Your task to perform on an android device: toggle sleep mode Image 0: 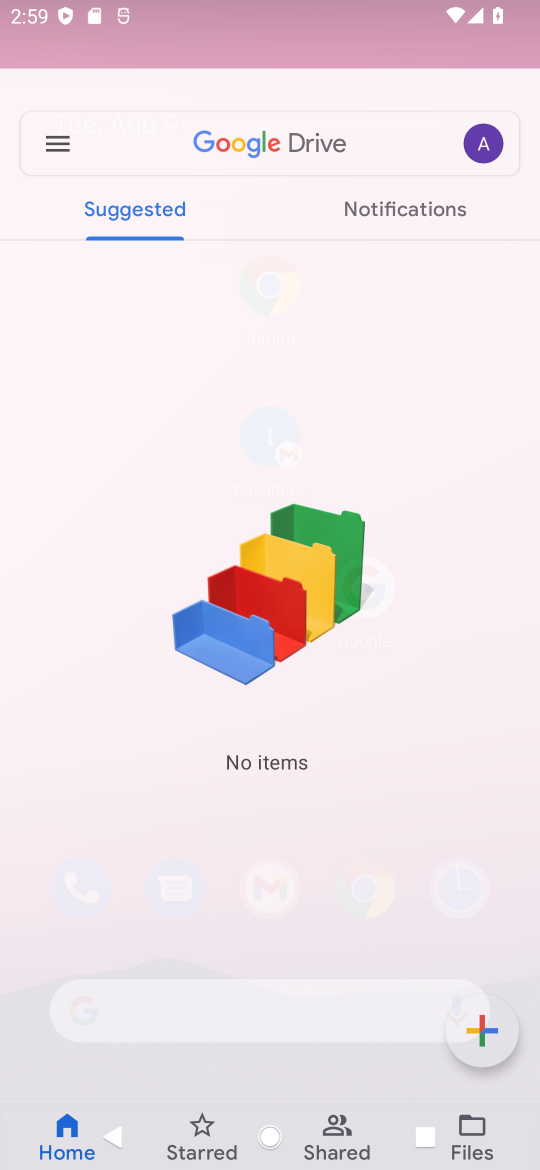
Step 0: press back button
Your task to perform on an android device: toggle sleep mode Image 1: 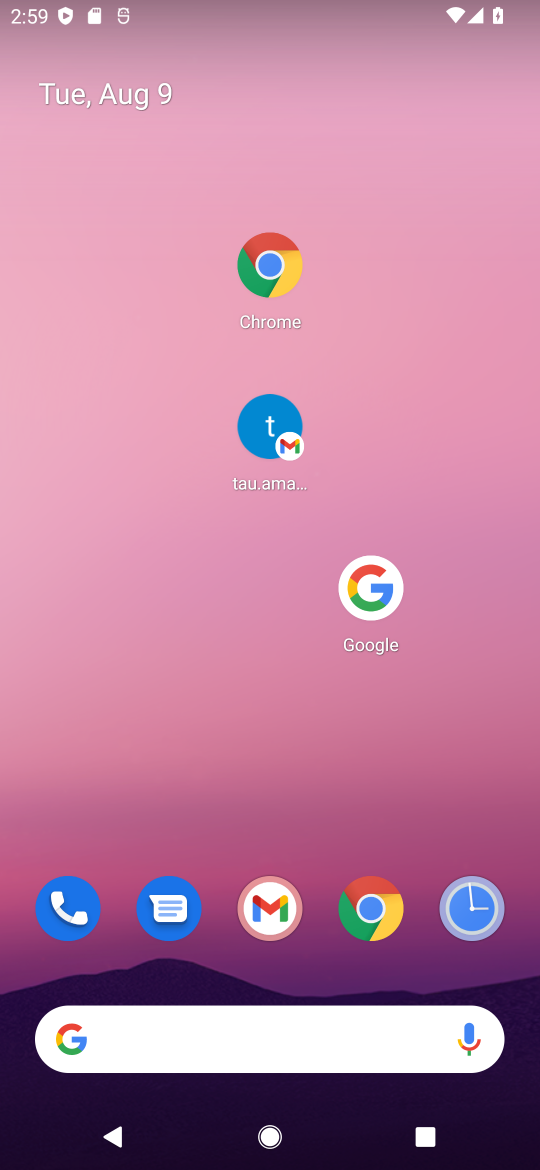
Step 1: press home button
Your task to perform on an android device: toggle sleep mode Image 2: 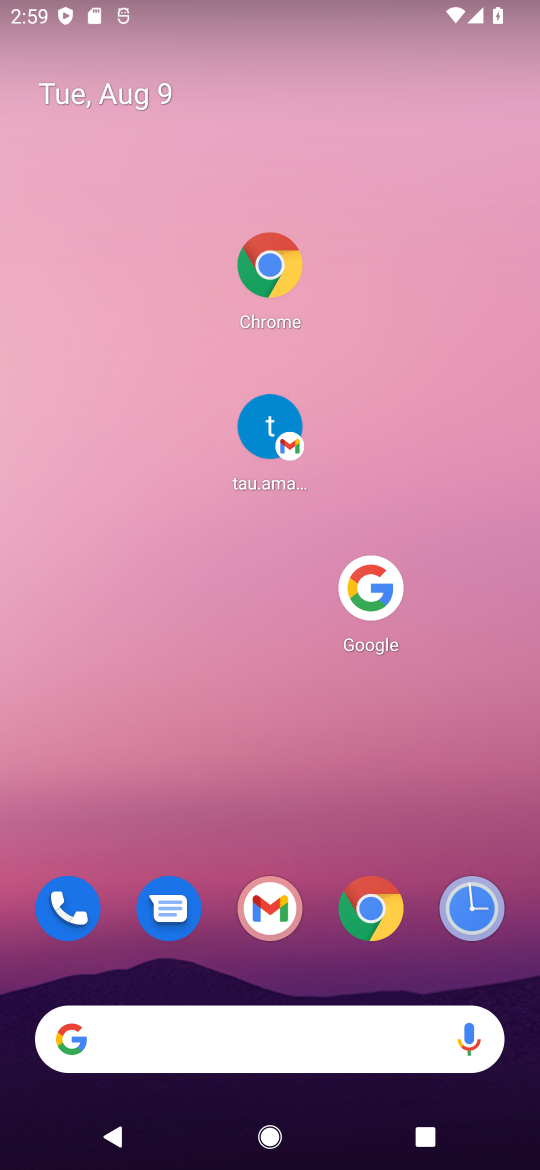
Step 2: drag from (326, 825) to (340, 175)
Your task to perform on an android device: toggle sleep mode Image 3: 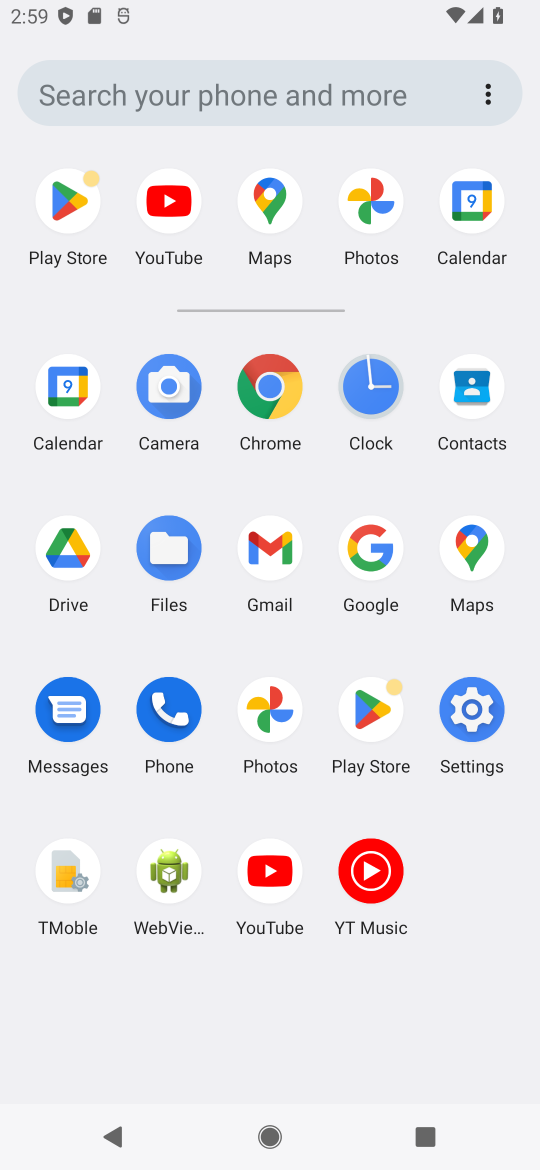
Step 3: click (471, 723)
Your task to perform on an android device: toggle sleep mode Image 4: 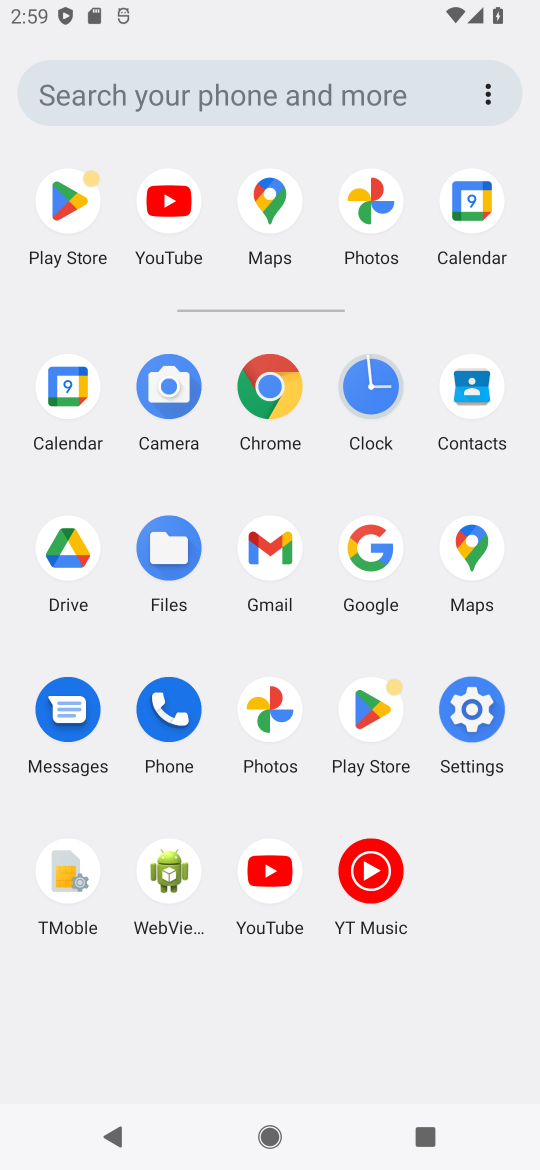
Step 4: click (473, 722)
Your task to perform on an android device: toggle sleep mode Image 5: 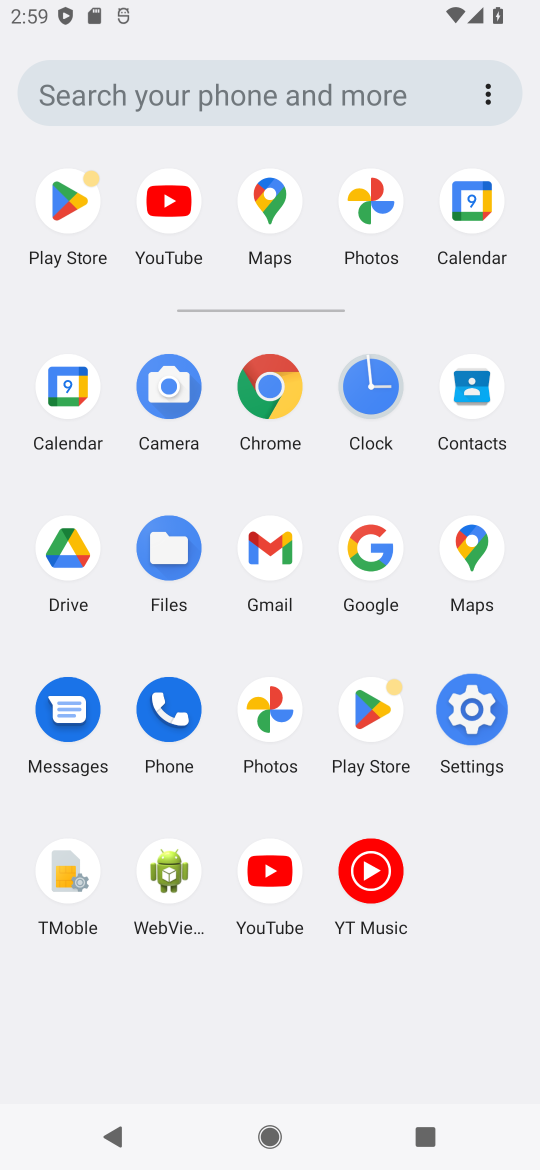
Step 5: click (473, 722)
Your task to perform on an android device: toggle sleep mode Image 6: 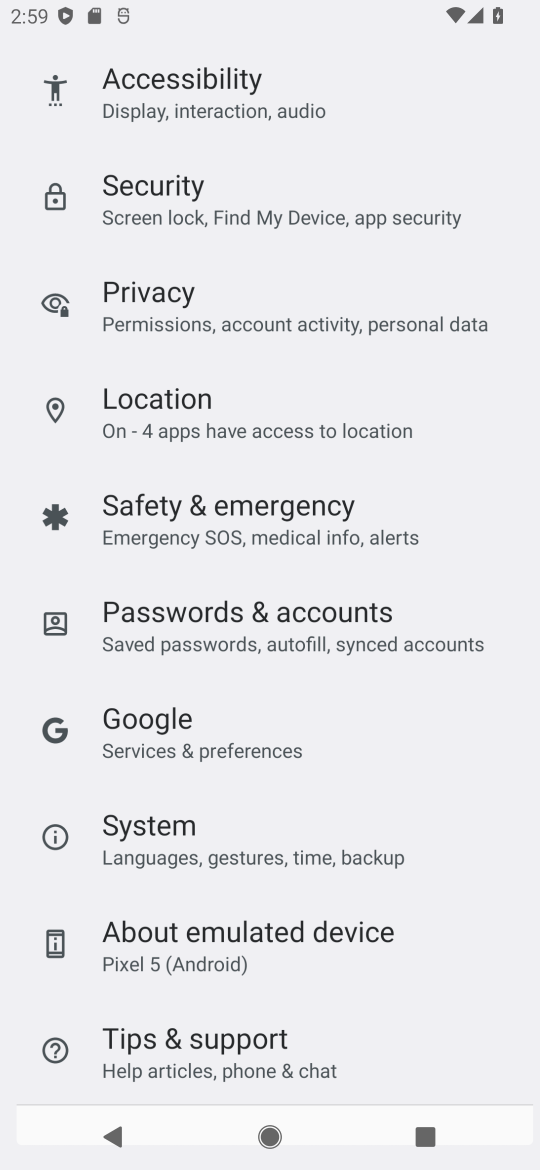
Step 6: click (474, 722)
Your task to perform on an android device: toggle sleep mode Image 7: 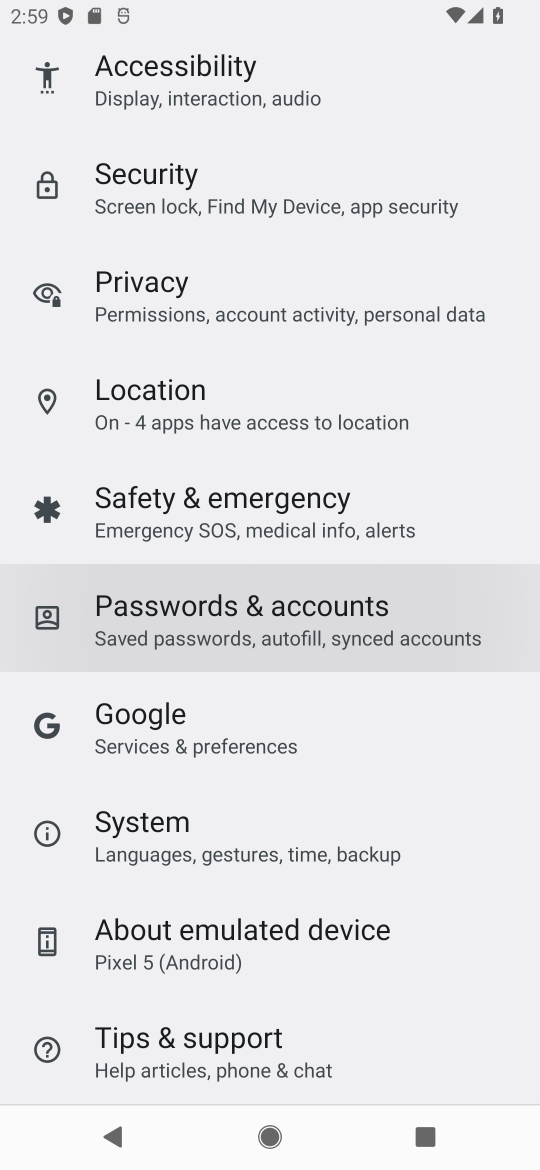
Step 7: click (474, 722)
Your task to perform on an android device: toggle sleep mode Image 8: 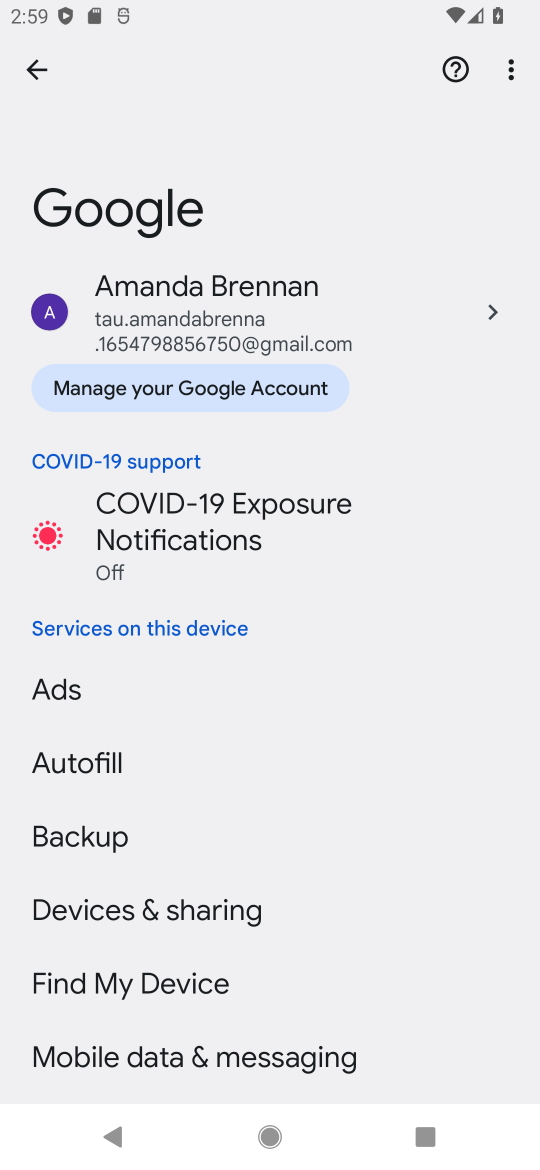
Step 8: click (40, 76)
Your task to perform on an android device: toggle sleep mode Image 9: 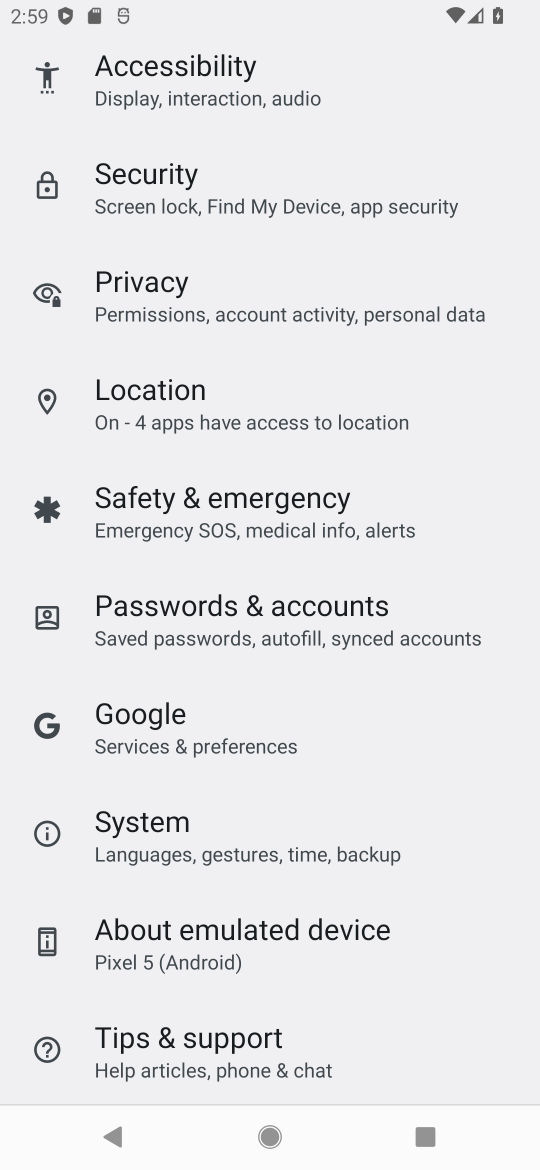
Step 9: drag from (202, 254) to (238, 557)
Your task to perform on an android device: toggle sleep mode Image 10: 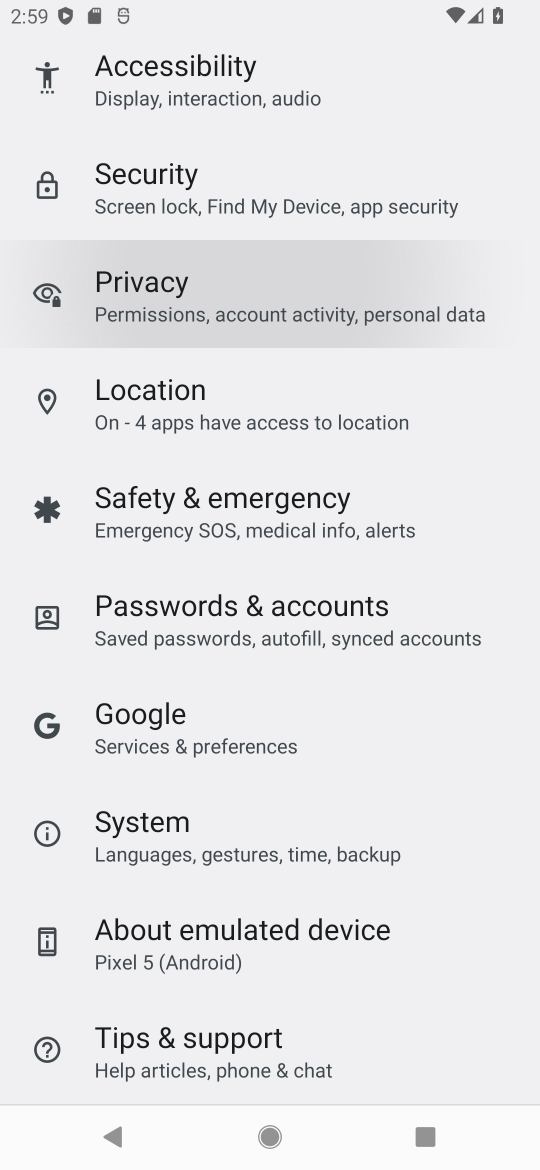
Step 10: drag from (211, 241) to (316, 806)
Your task to perform on an android device: toggle sleep mode Image 11: 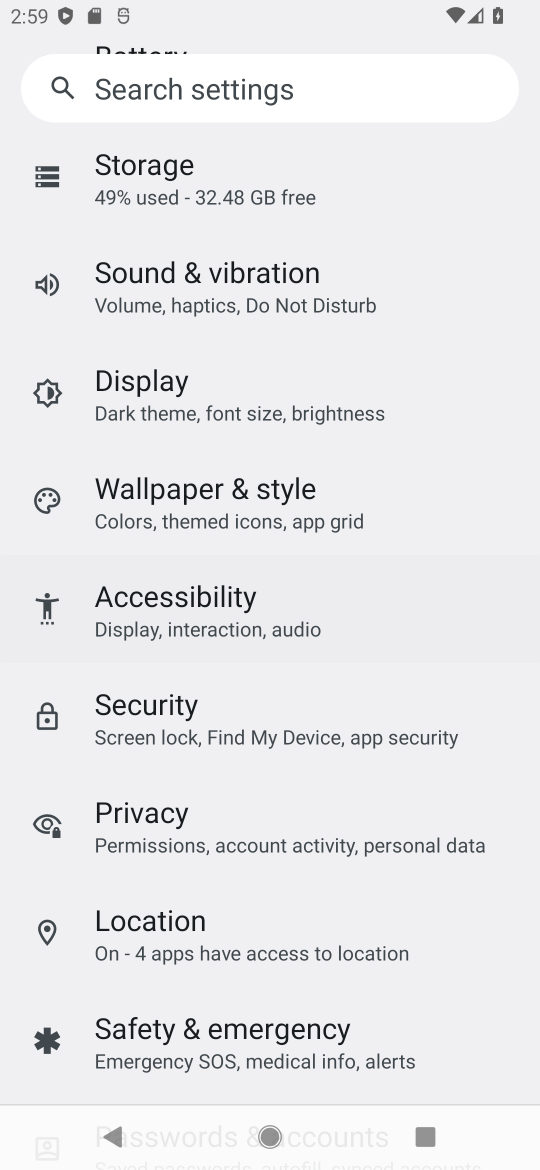
Step 11: drag from (232, 341) to (246, 675)
Your task to perform on an android device: toggle sleep mode Image 12: 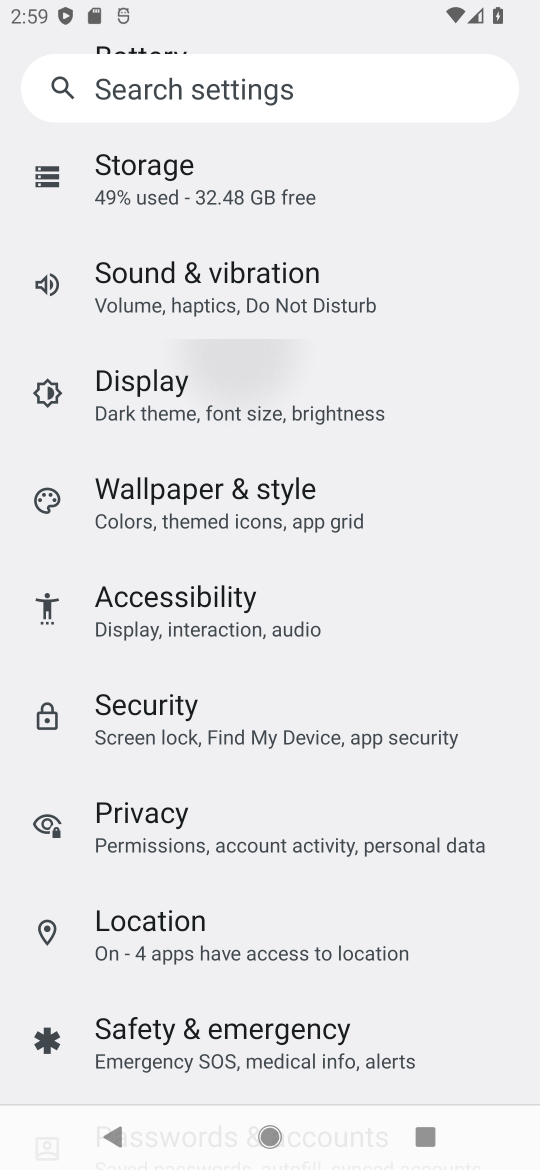
Step 12: drag from (229, 392) to (158, 975)
Your task to perform on an android device: toggle sleep mode Image 13: 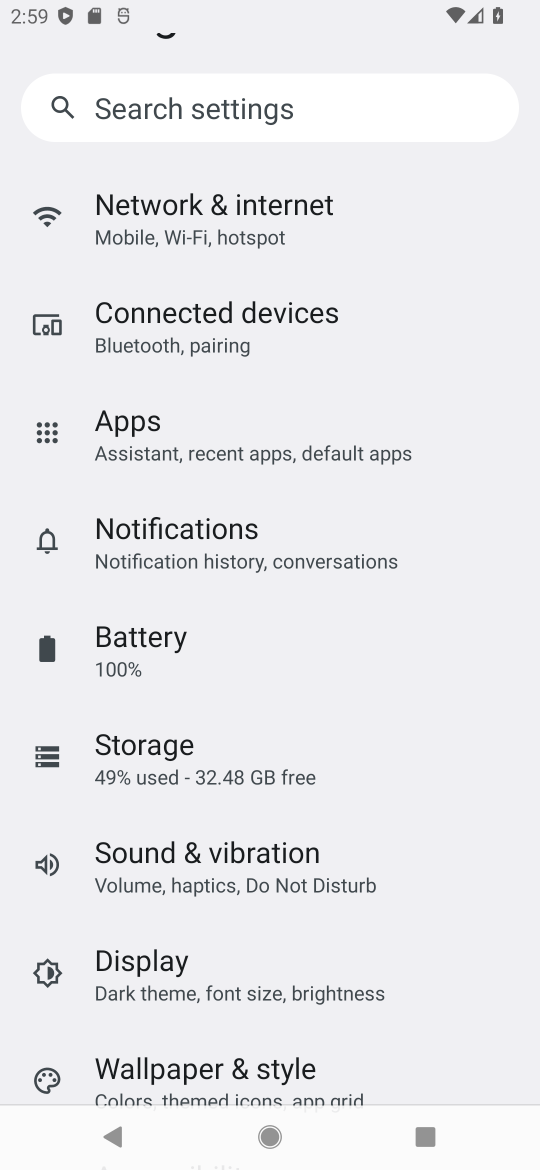
Step 13: drag from (199, 388) to (199, 804)
Your task to perform on an android device: toggle sleep mode Image 14: 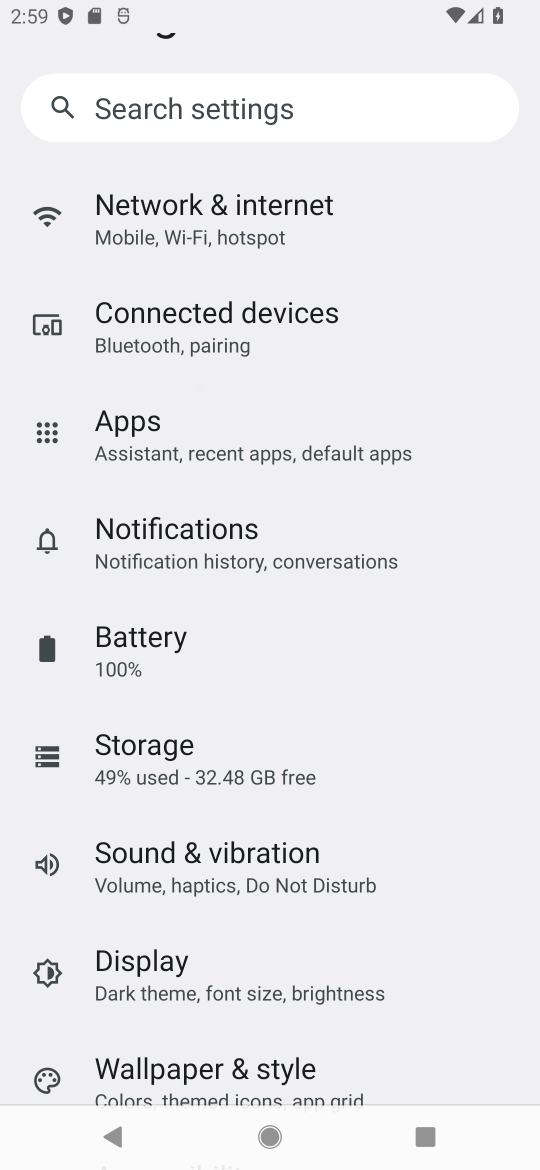
Step 14: drag from (208, 295) to (203, 785)
Your task to perform on an android device: toggle sleep mode Image 15: 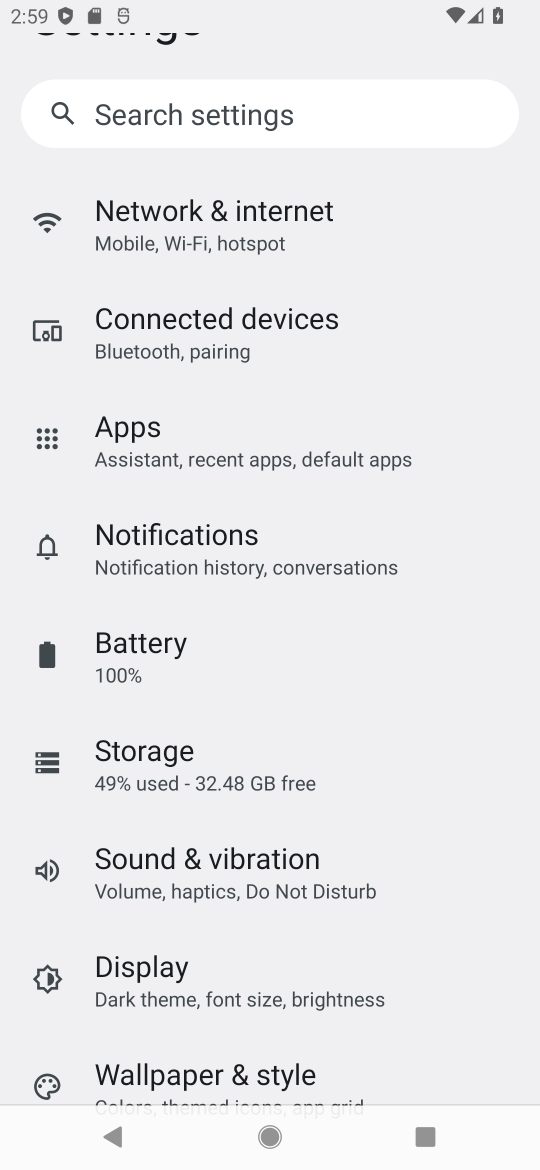
Step 15: drag from (198, 909) to (184, 562)
Your task to perform on an android device: toggle sleep mode Image 16: 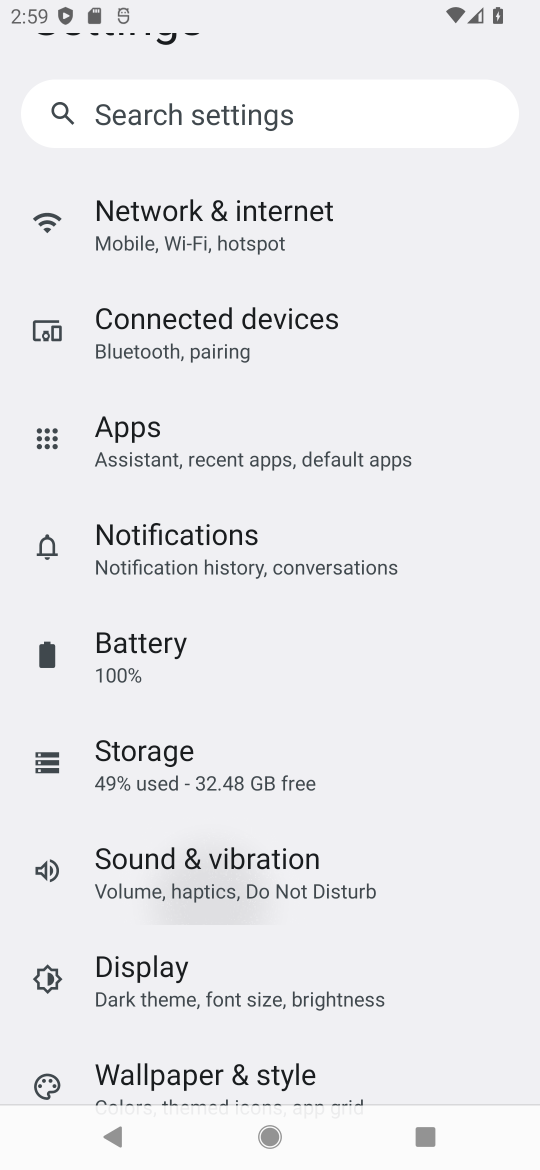
Step 16: drag from (250, 817) to (269, 320)
Your task to perform on an android device: toggle sleep mode Image 17: 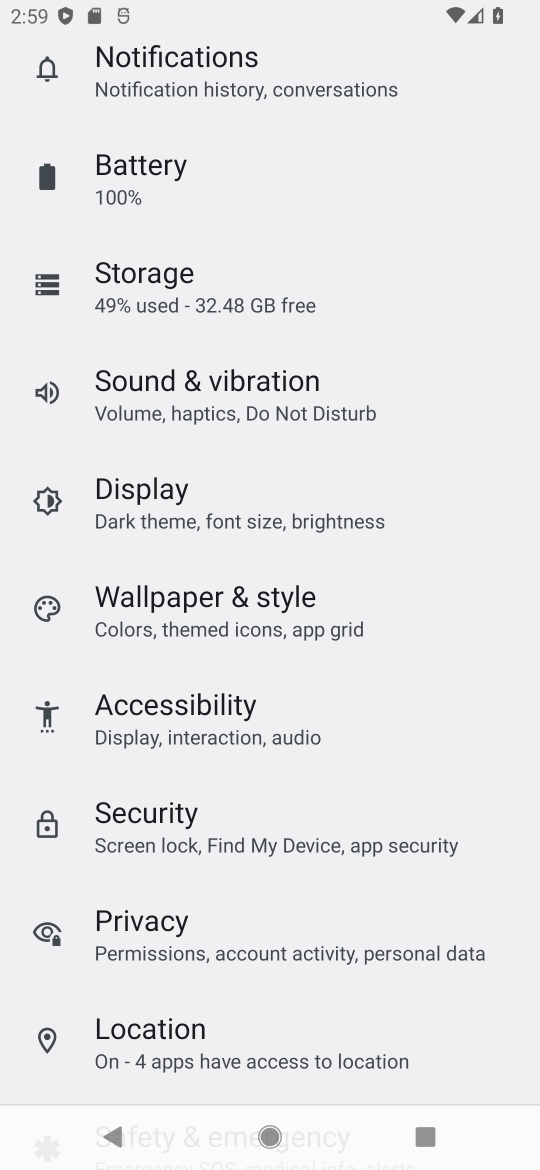
Step 17: click (151, 513)
Your task to perform on an android device: toggle sleep mode Image 18: 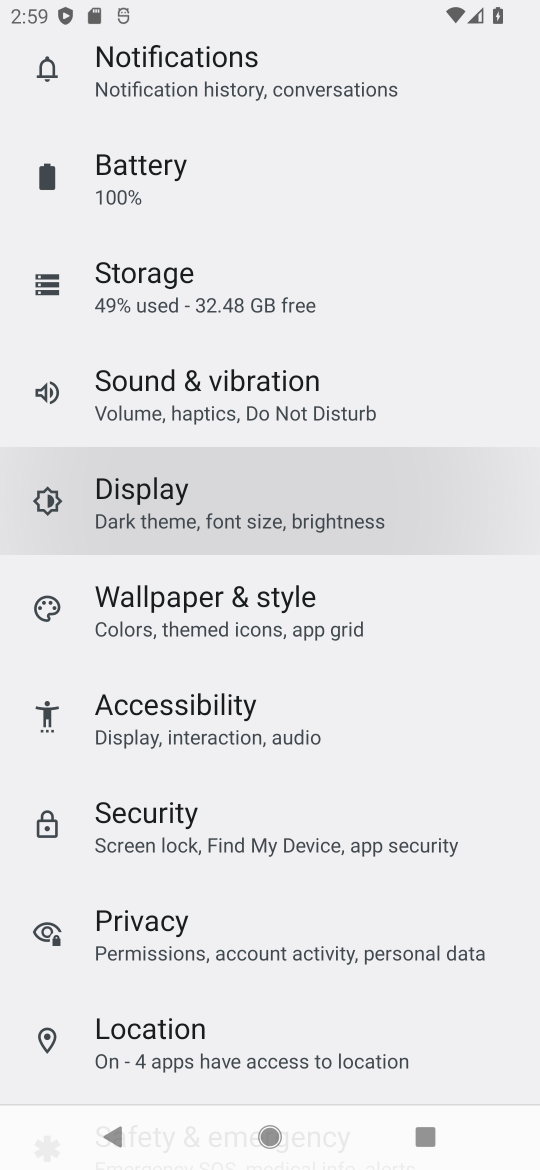
Step 18: click (159, 505)
Your task to perform on an android device: toggle sleep mode Image 19: 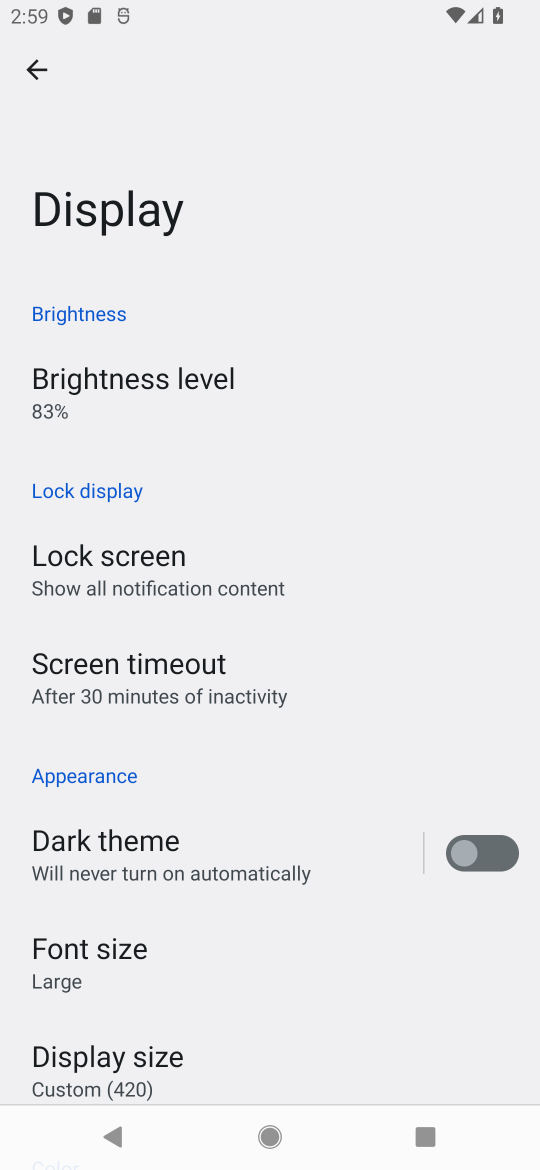
Step 19: drag from (248, 965) to (203, 478)
Your task to perform on an android device: toggle sleep mode Image 20: 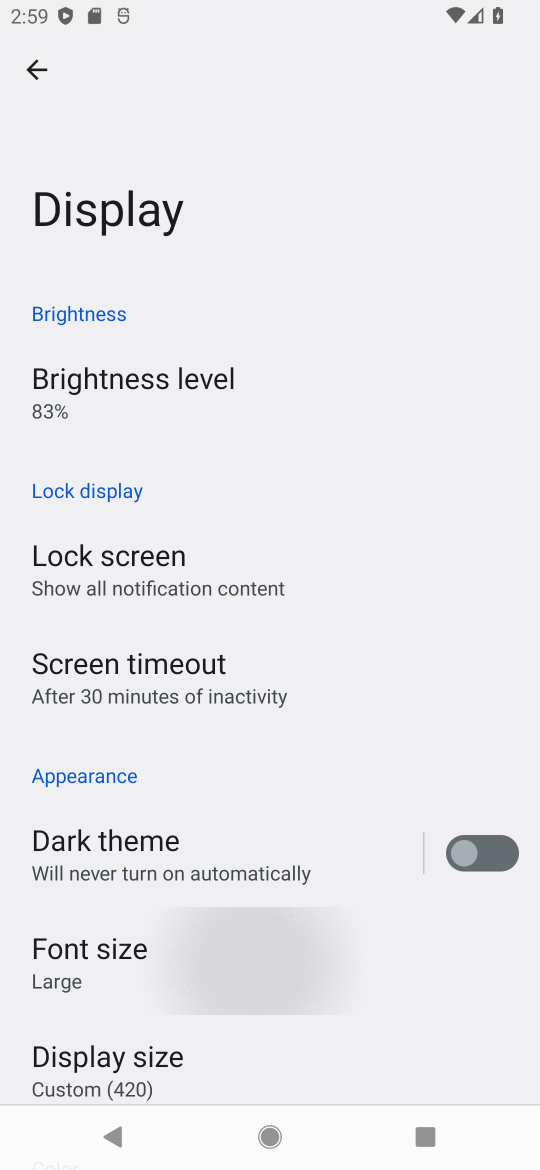
Step 20: drag from (249, 717) to (249, 490)
Your task to perform on an android device: toggle sleep mode Image 21: 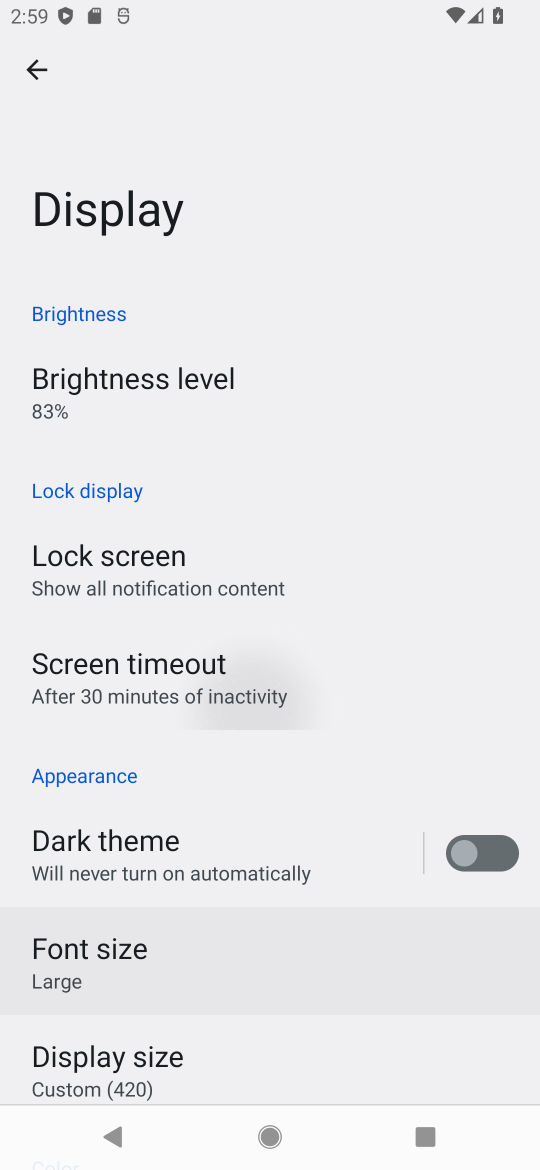
Step 21: drag from (221, 538) to (221, 468)
Your task to perform on an android device: toggle sleep mode Image 22: 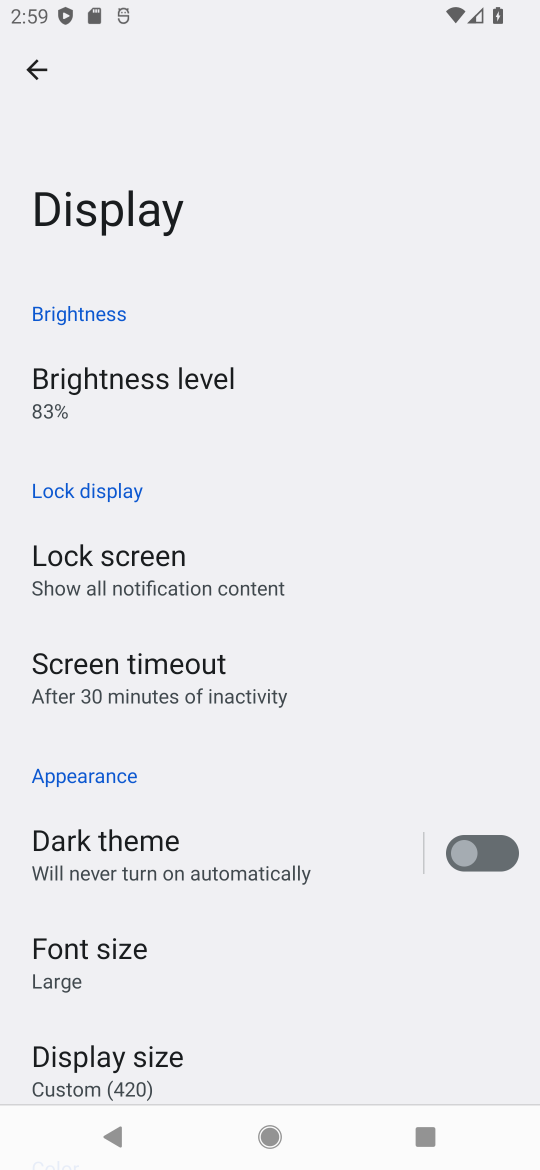
Step 22: drag from (232, 904) to (229, 307)
Your task to perform on an android device: toggle sleep mode Image 23: 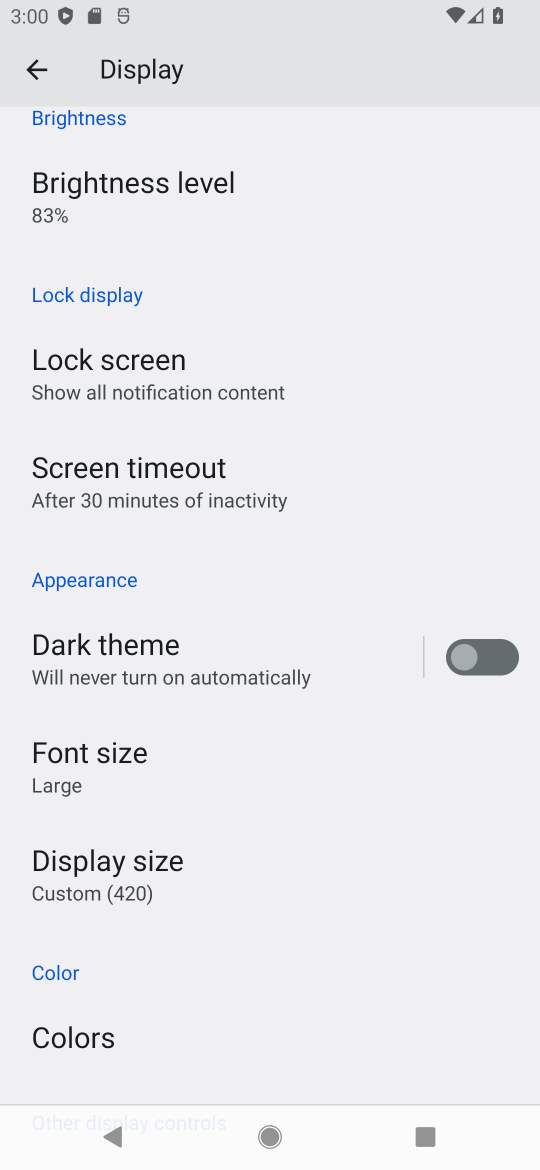
Step 23: click (134, 463)
Your task to perform on an android device: toggle sleep mode Image 24: 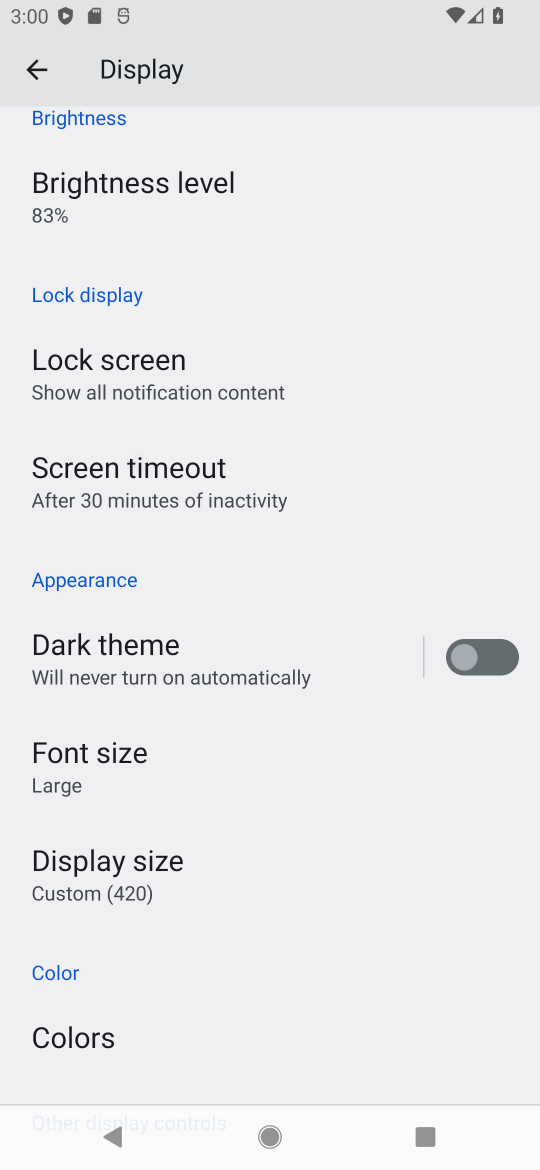
Step 24: click (134, 463)
Your task to perform on an android device: toggle sleep mode Image 25: 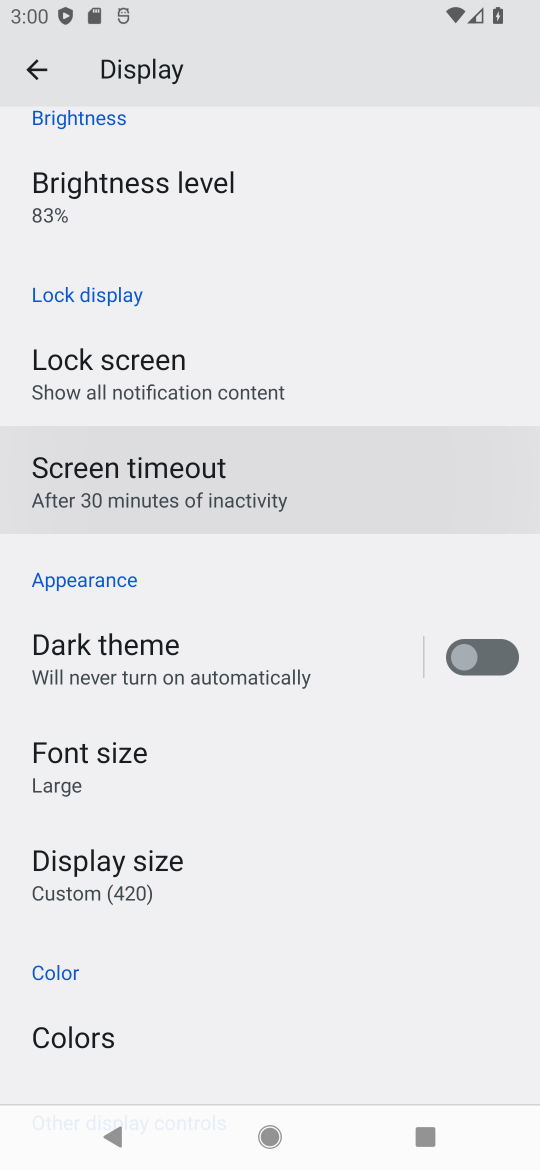
Step 25: click (136, 463)
Your task to perform on an android device: toggle sleep mode Image 26: 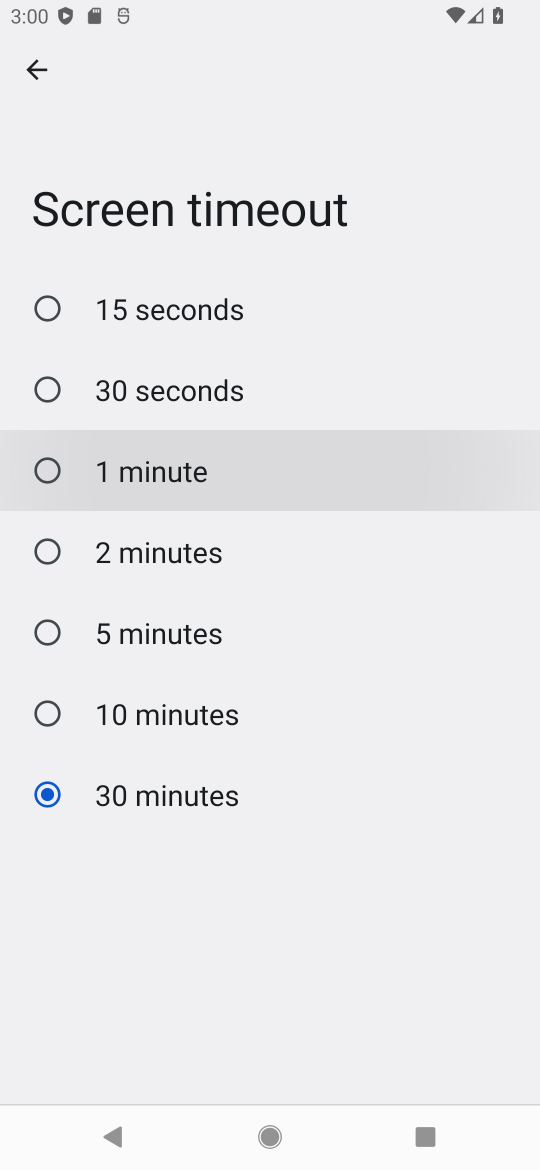
Step 26: click (136, 463)
Your task to perform on an android device: toggle sleep mode Image 27: 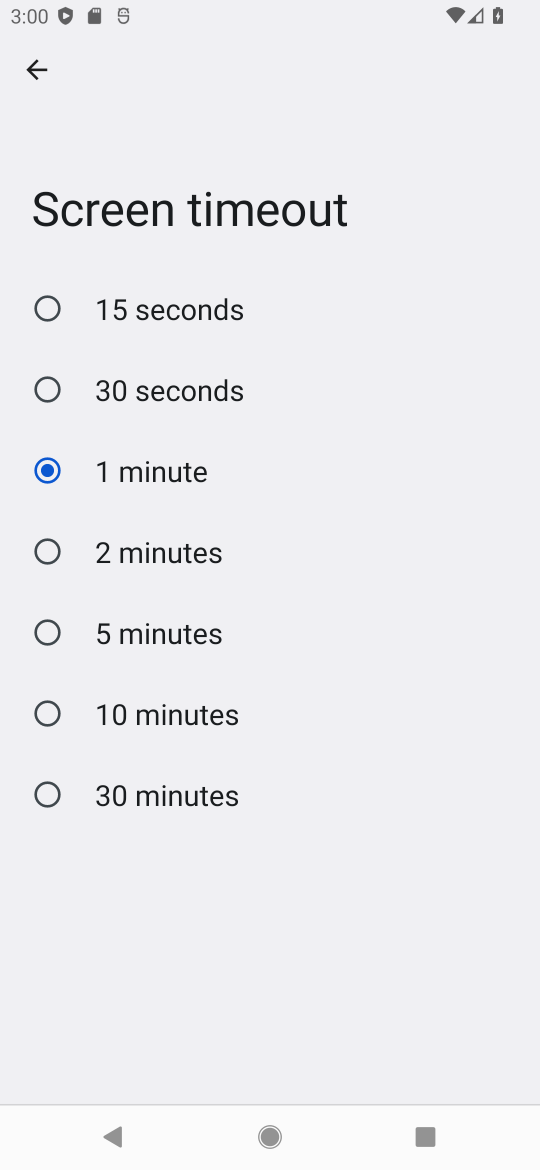
Step 27: task complete